Your task to perform on an android device: search for starred emails in the gmail app Image 0: 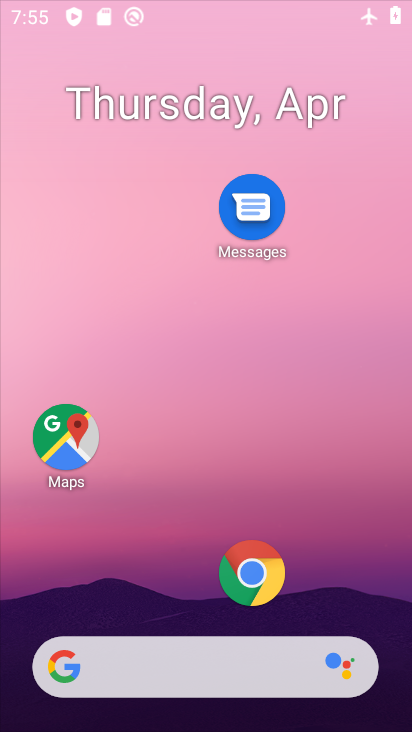
Step 0: click (233, 54)
Your task to perform on an android device: search for starred emails in the gmail app Image 1: 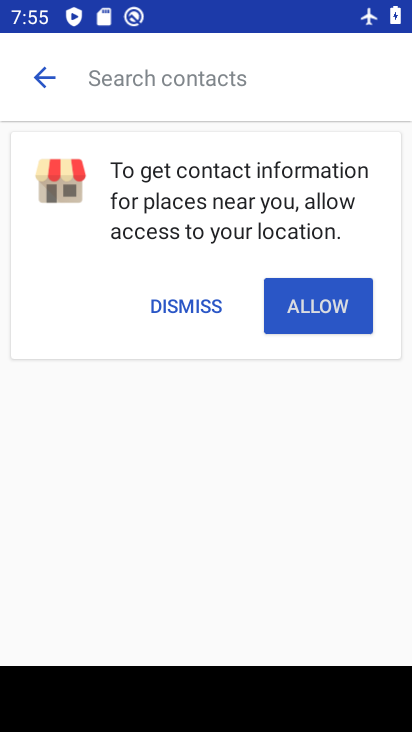
Step 1: press home button
Your task to perform on an android device: search for starred emails in the gmail app Image 2: 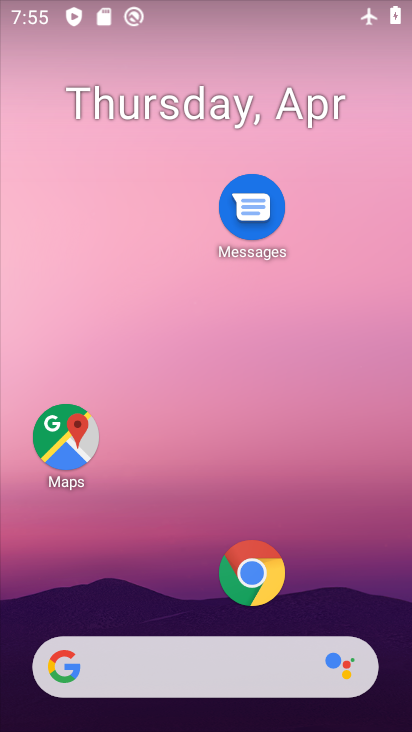
Step 2: drag from (205, 612) to (199, 94)
Your task to perform on an android device: search for starred emails in the gmail app Image 3: 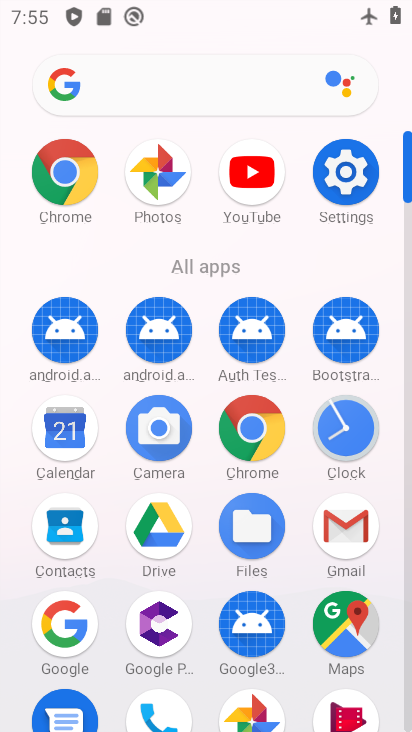
Step 3: click (342, 517)
Your task to perform on an android device: search for starred emails in the gmail app Image 4: 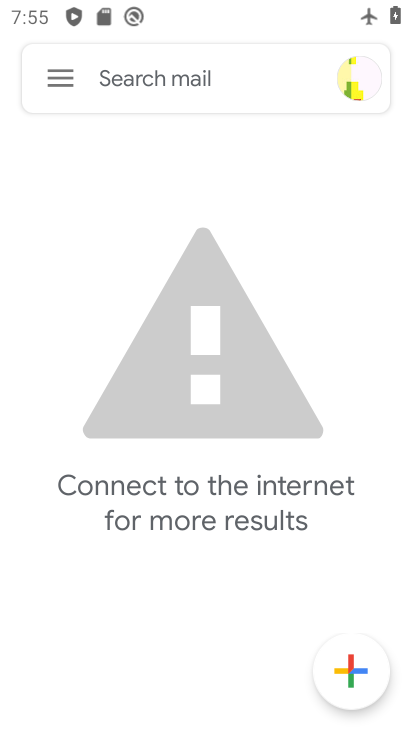
Step 4: click (57, 69)
Your task to perform on an android device: search for starred emails in the gmail app Image 5: 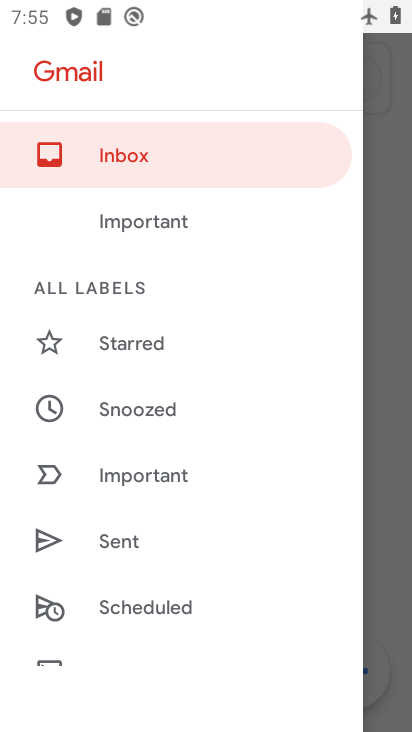
Step 5: click (168, 340)
Your task to perform on an android device: search for starred emails in the gmail app Image 6: 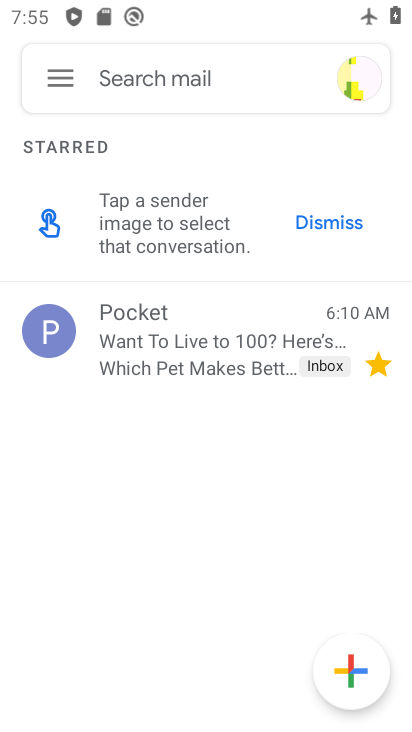
Step 6: task complete